Your task to perform on an android device: Open network settings Image 0: 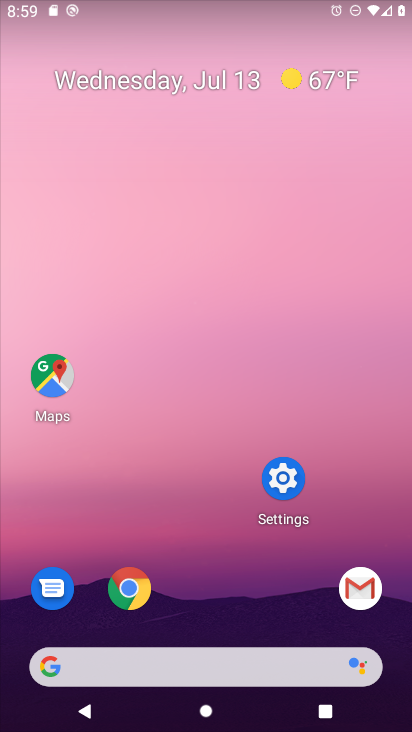
Step 0: click (292, 471)
Your task to perform on an android device: Open network settings Image 1: 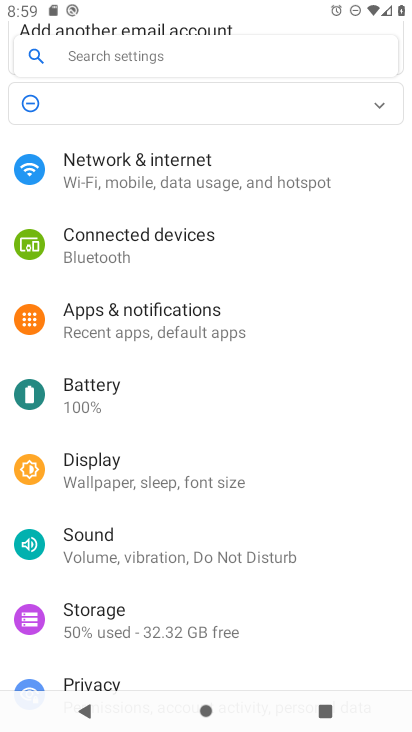
Step 1: click (112, 182)
Your task to perform on an android device: Open network settings Image 2: 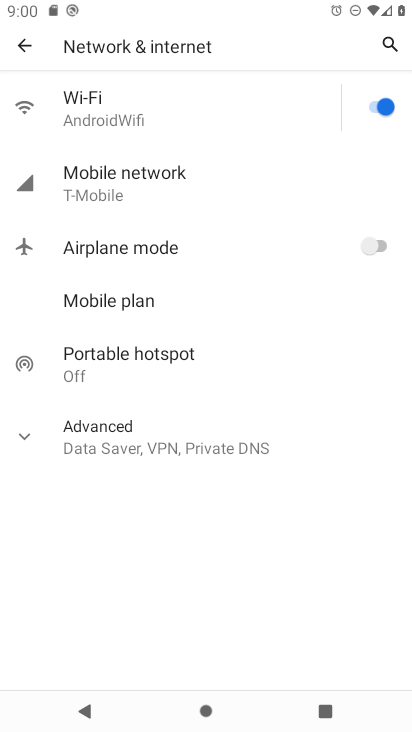
Step 2: task complete